Your task to perform on an android device: Check the weather Image 0: 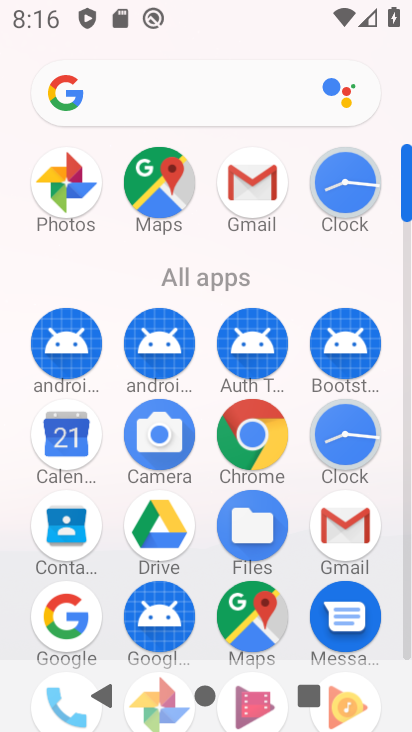
Step 0: click (225, 104)
Your task to perform on an android device: Check the weather Image 1: 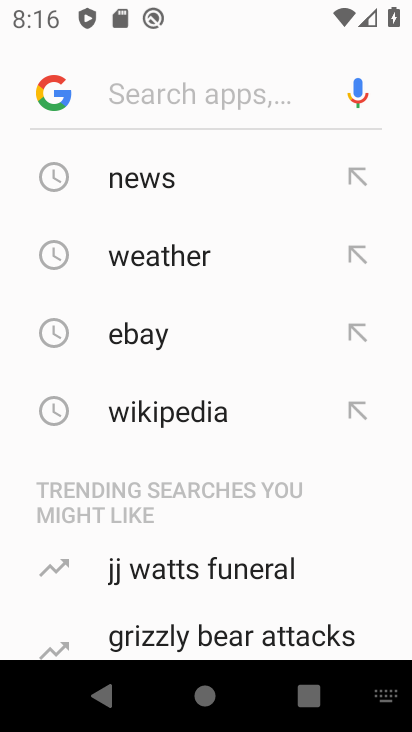
Step 1: click (151, 249)
Your task to perform on an android device: Check the weather Image 2: 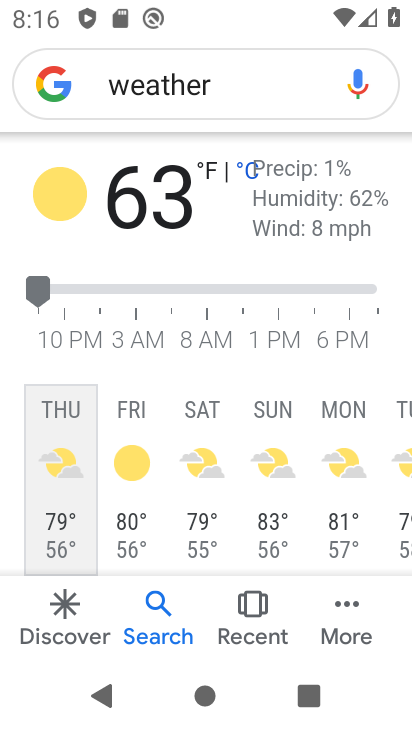
Step 2: task complete